Your task to perform on an android device: find snoozed emails in the gmail app Image 0: 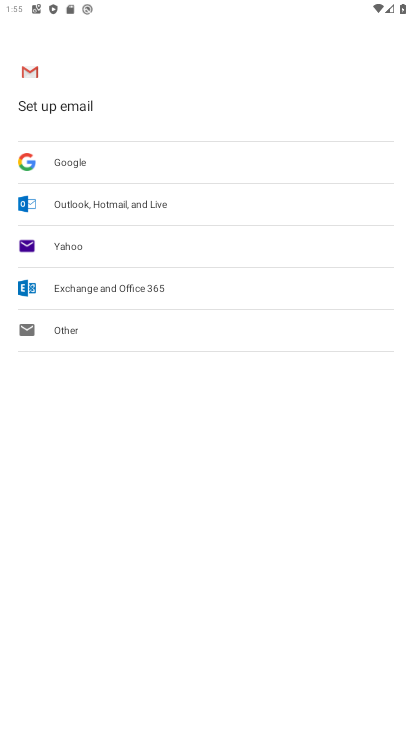
Step 0: press back button
Your task to perform on an android device: find snoozed emails in the gmail app Image 1: 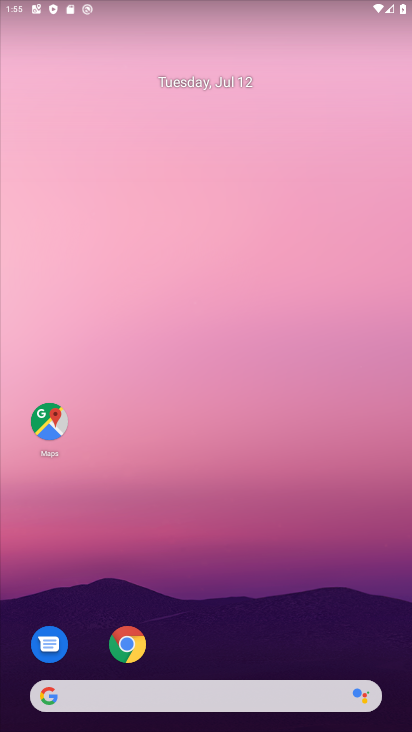
Step 1: drag from (246, 633) to (279, 38)
Your task to perform on an android device: find snoozed emails in the gmail app Image 2: 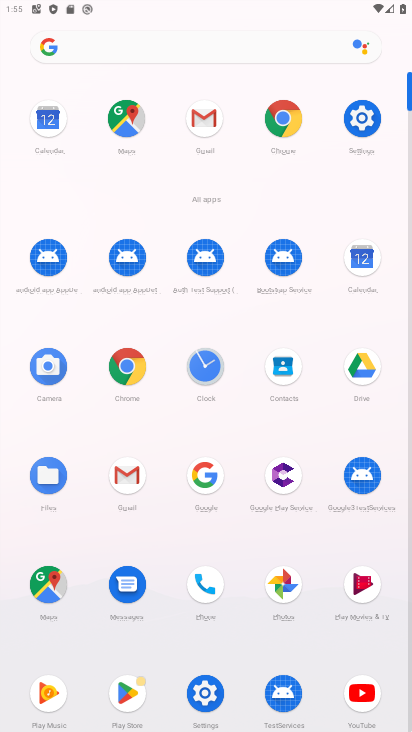
Step 2: click (209, 113)
Your task to perform on an android device: find snoozed emails in the gmail app Image 3: 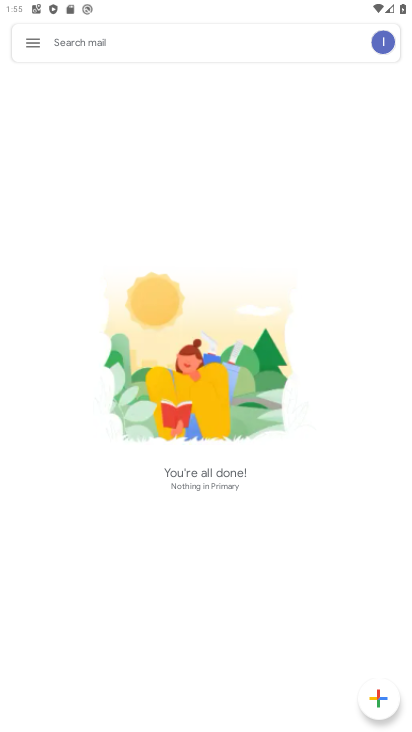
Step 3: click (40, 44)
Your task to perform on an android device: find snoozed emails in the gmail app Image 4: 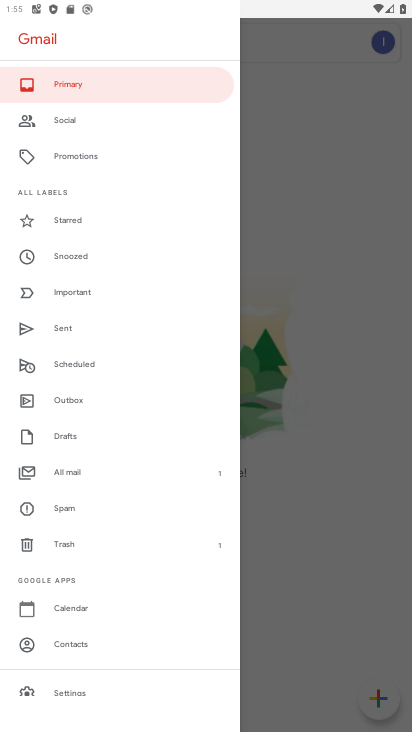
Step 4: click (87, 258)
Your task to perform on an android device: find snoozed emails in the gmail app Image 5: 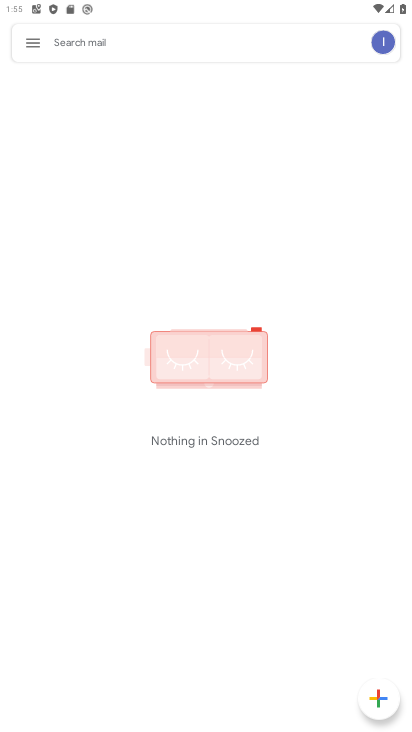
Step 5: task complete